Your task to perform on an android device: Go to ESPN.com Image 0: 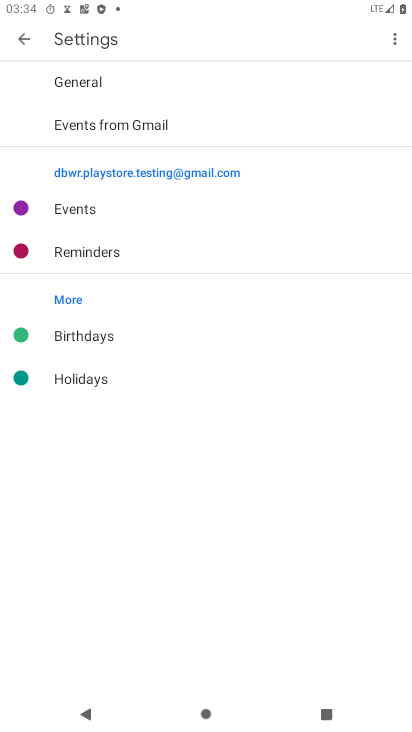
Step 0: press home button
Your task to perform on an android device: Go to ESPN.com Image 1: 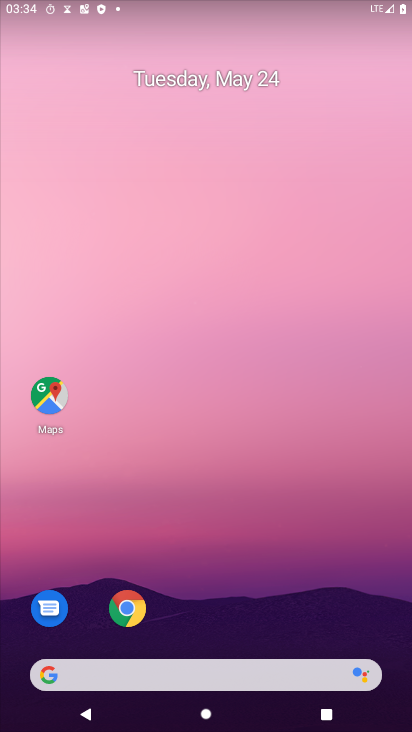
Step 1: click (136, 607)
Your task to perform on an android device: Go to ESPN.com Image 2: 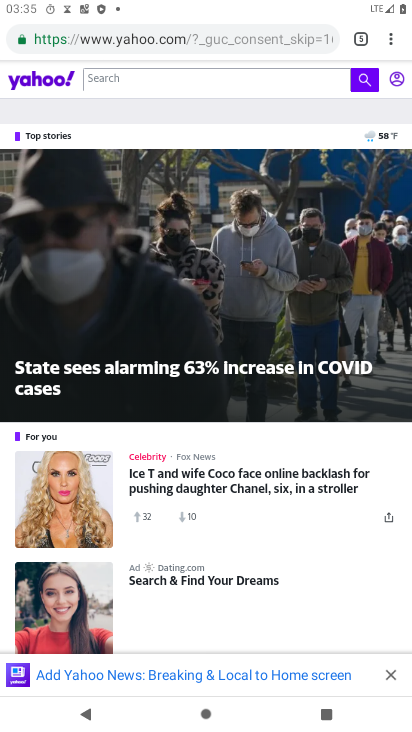
Step 2: click (130, 38)
Your task to perform on an android device: Go to ESPN.com Image 3: 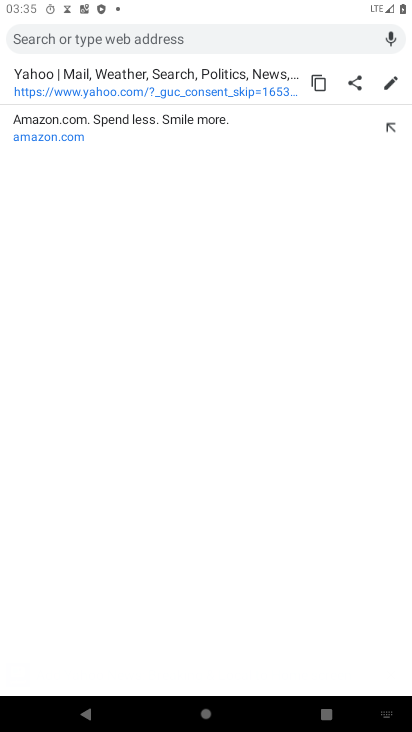
Step 3: type "espn"
Your task to perform on an android device: Go to ESPN.com Image 4: 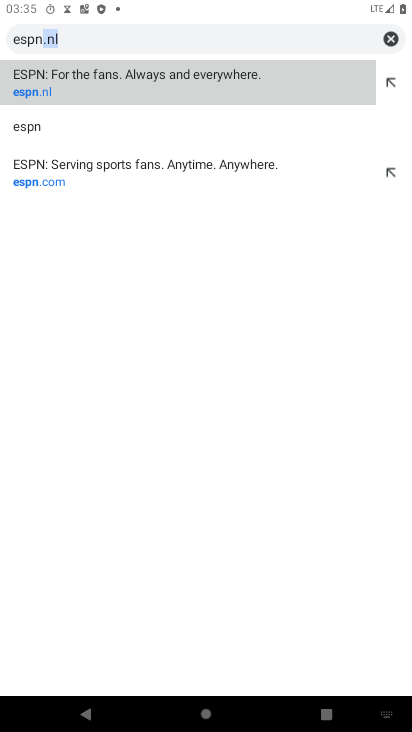
Step 4: click (24, 176)
Your task to perform on an android device: Go to ESPN.com Image 5: 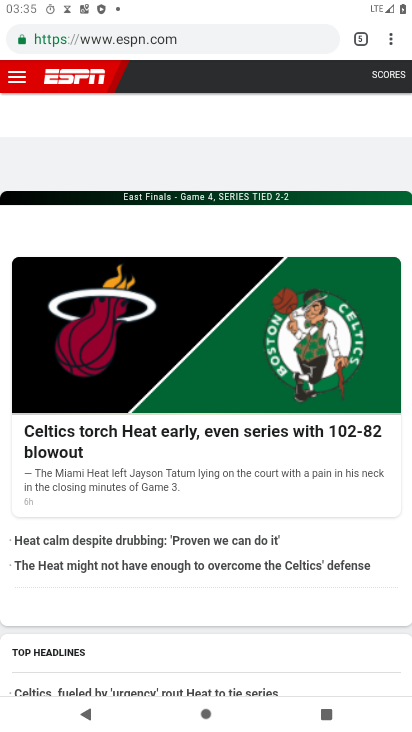
Step 5: task complete